Your task to perform on an android device: Open CNN.com Image 0: 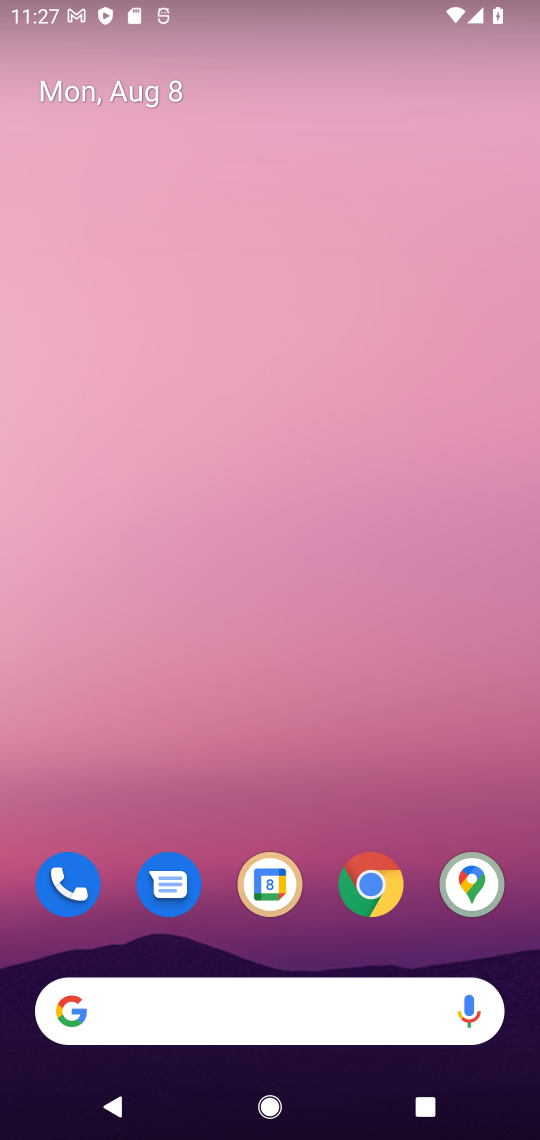
Step 0: click (377, 894)
Your task to perform on an android device: Open CNN.com Image 1: 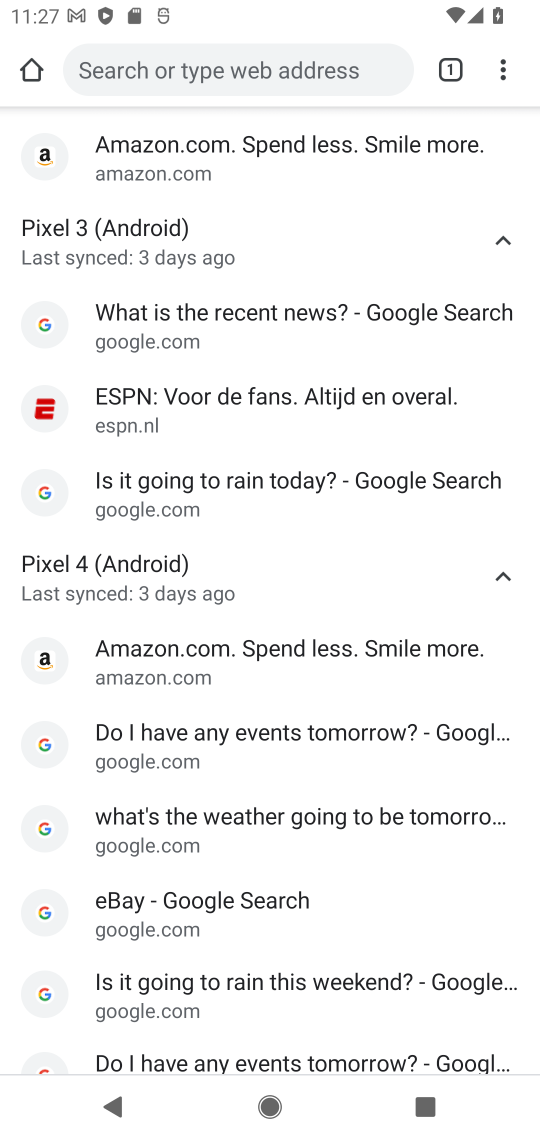
Step 1: click (181, 63)
Your task to perform on an android device: Open CNN.com Image 2: 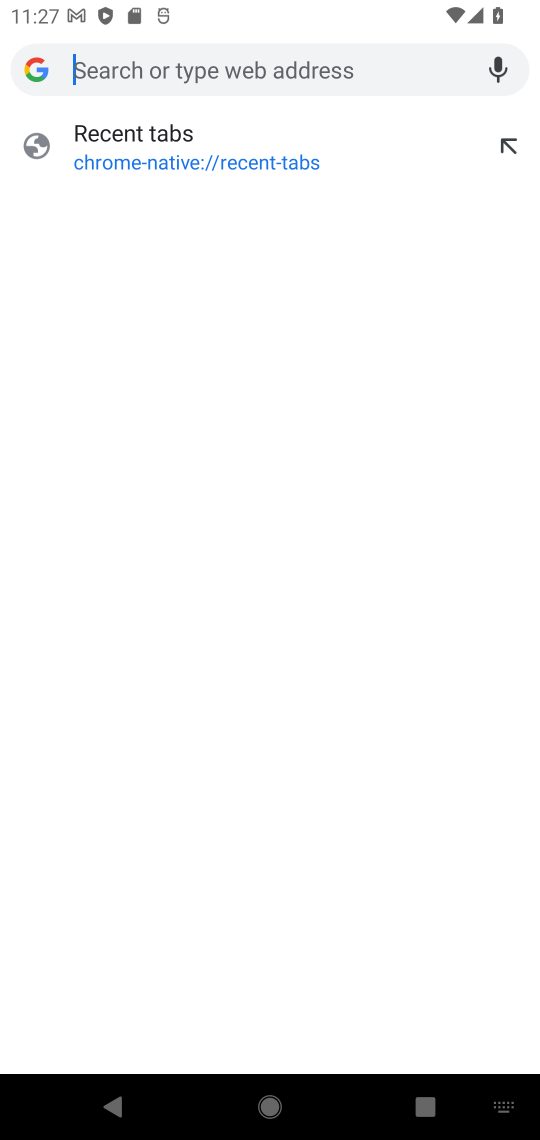
Step 2: type "CNN.com"
Your task to perform on an android device: Open CNN.com Image 3: 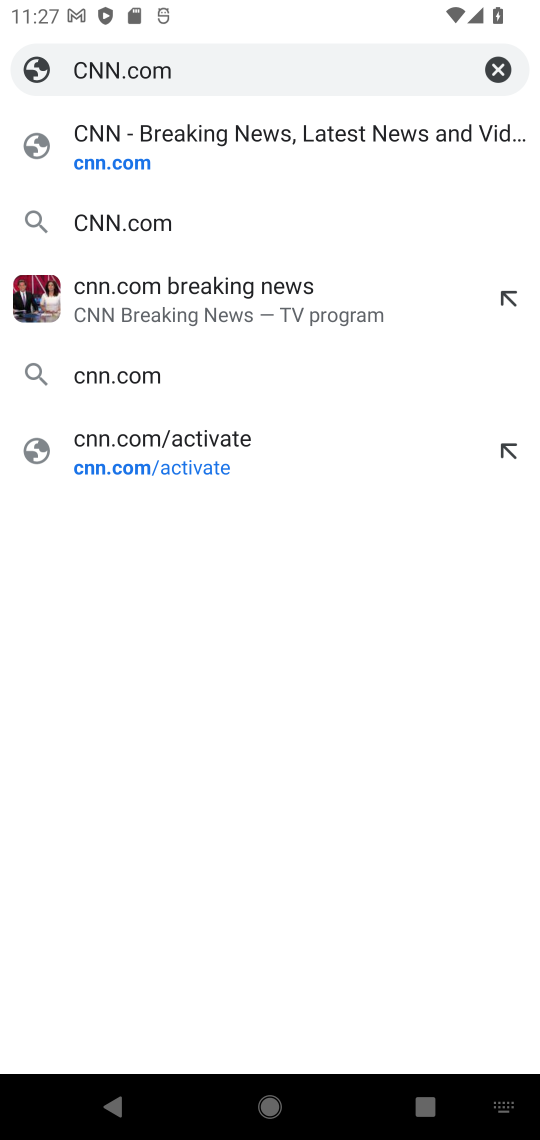
Step 3: click (143, 139)
Your task to perform on an android device: Open CNN.com Image 4: 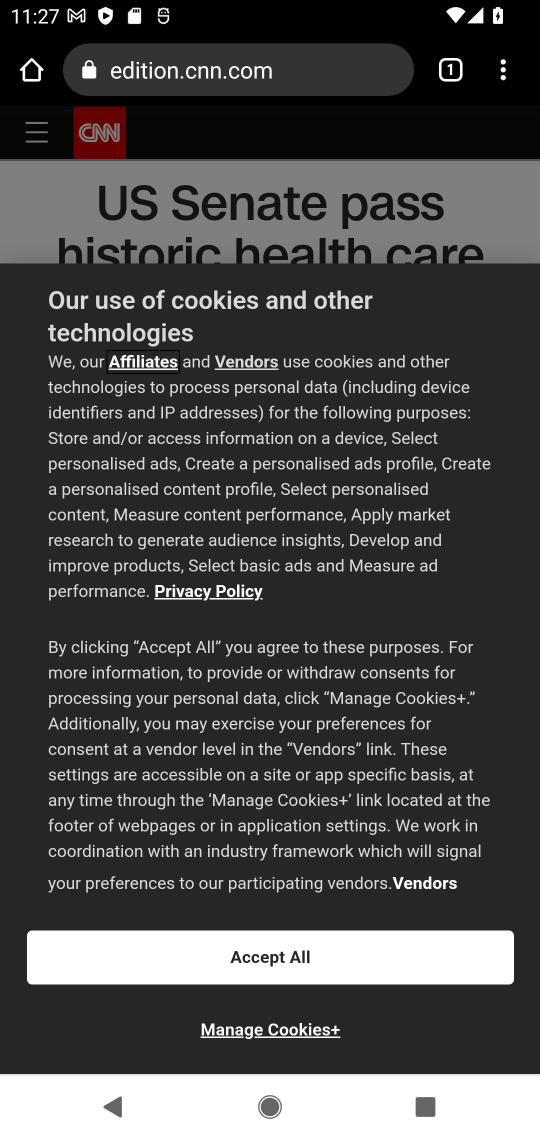
Step 4: task complete